Your task to perform on an android device: toggle javascript in the chrome app Image 0: 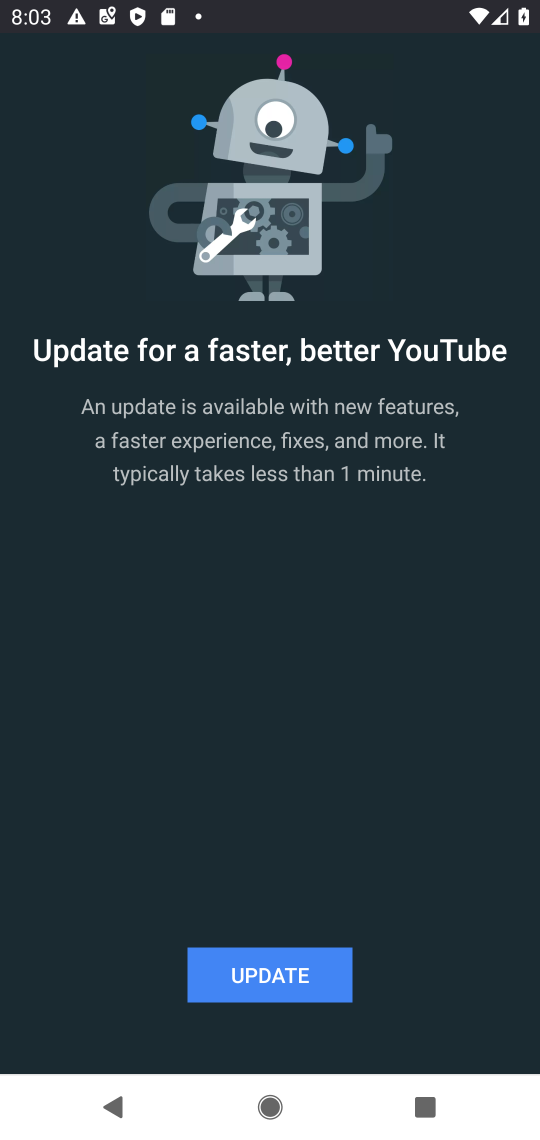
Step 0: press home button
Your task to perform on an android device: toggle javascript in the chrome app Image 1: 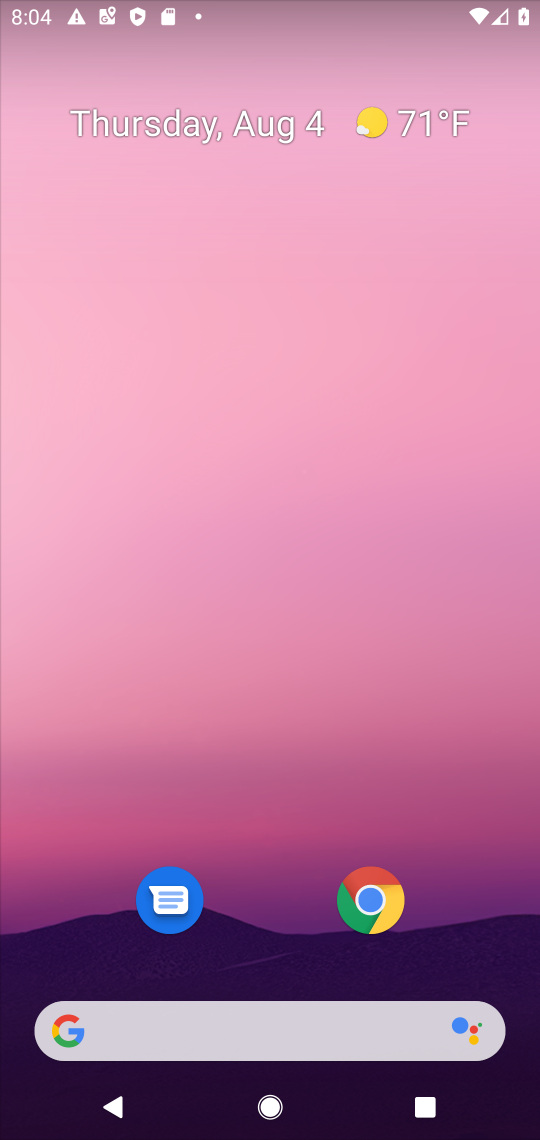
Step 1: click (376, 911)
Your task to perform on an android device: toggle javascript in the chrome app Image 2: 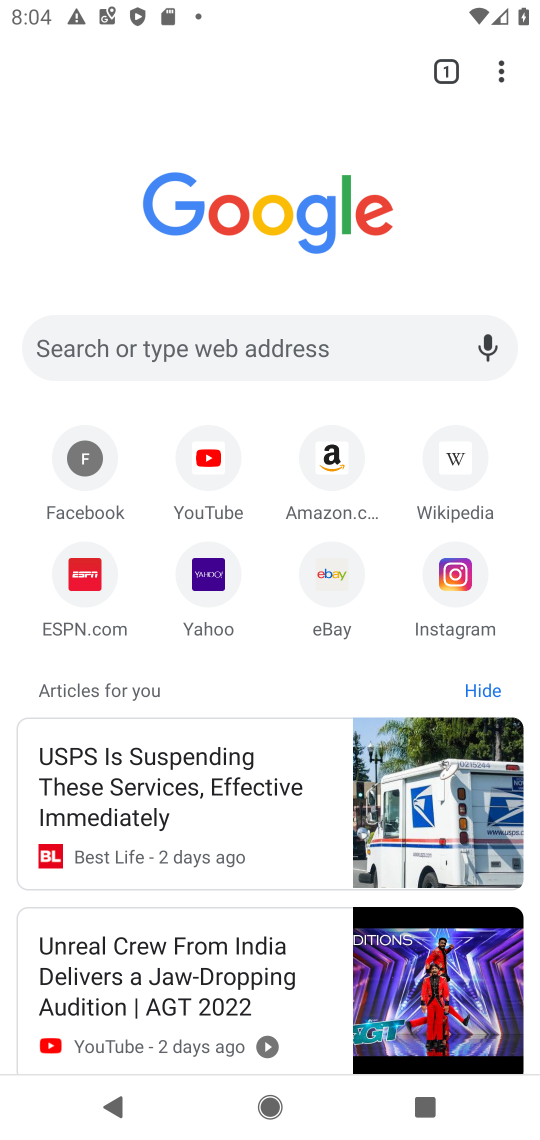
Step 2: click (505, 71)
Your task to perform on an android device: toggle javascript in the chrome app Image 3: 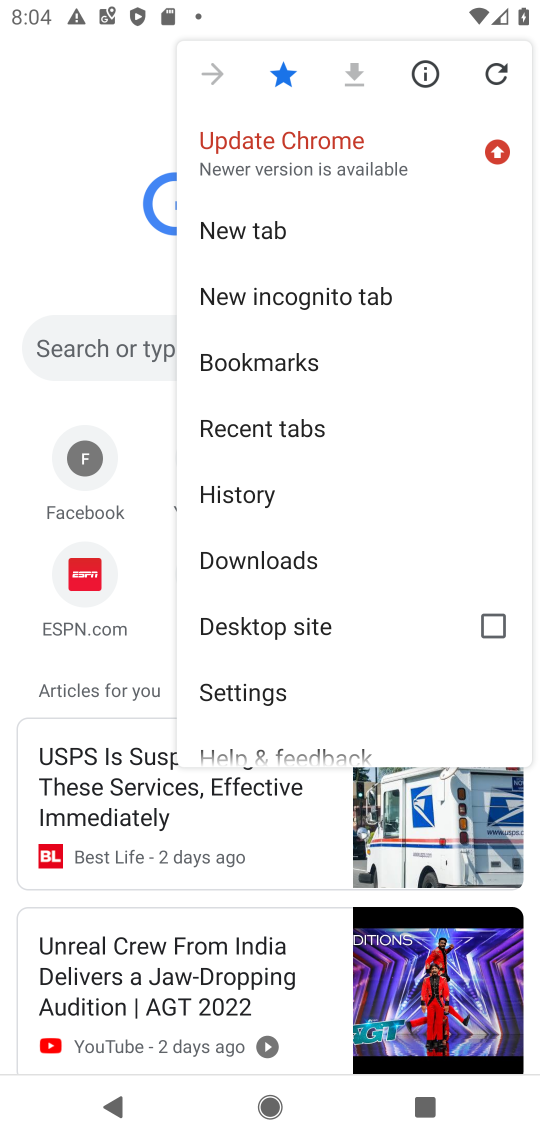
Step 3: click (273, 688)
Your task to perform on an android device: toggle javascript in the chrome app Image 4: 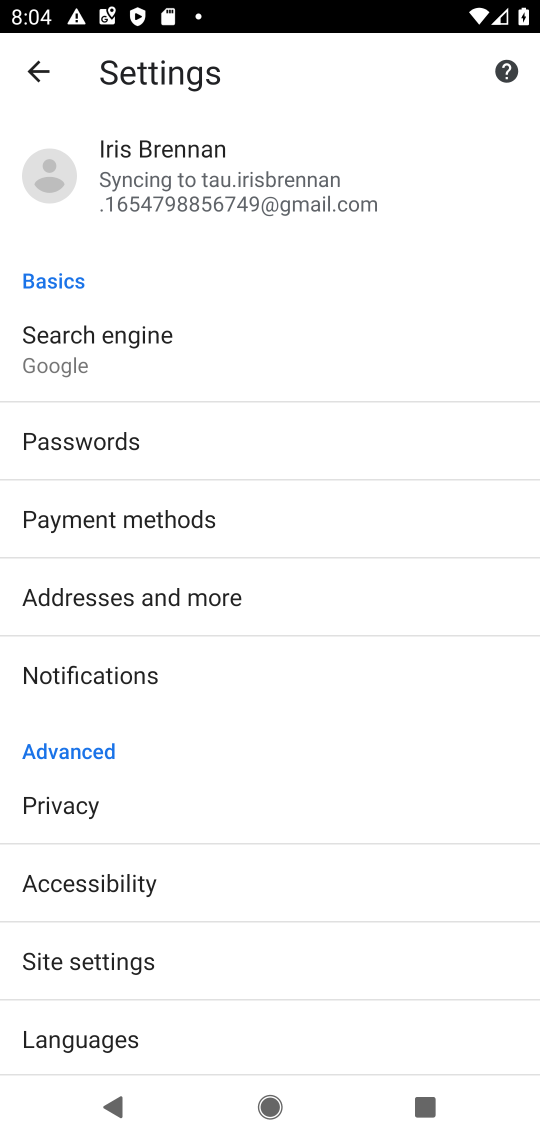
Step 4: click (132, 959)
Your task to perform on an android device: toggle javascript in the chrome app Image 5: 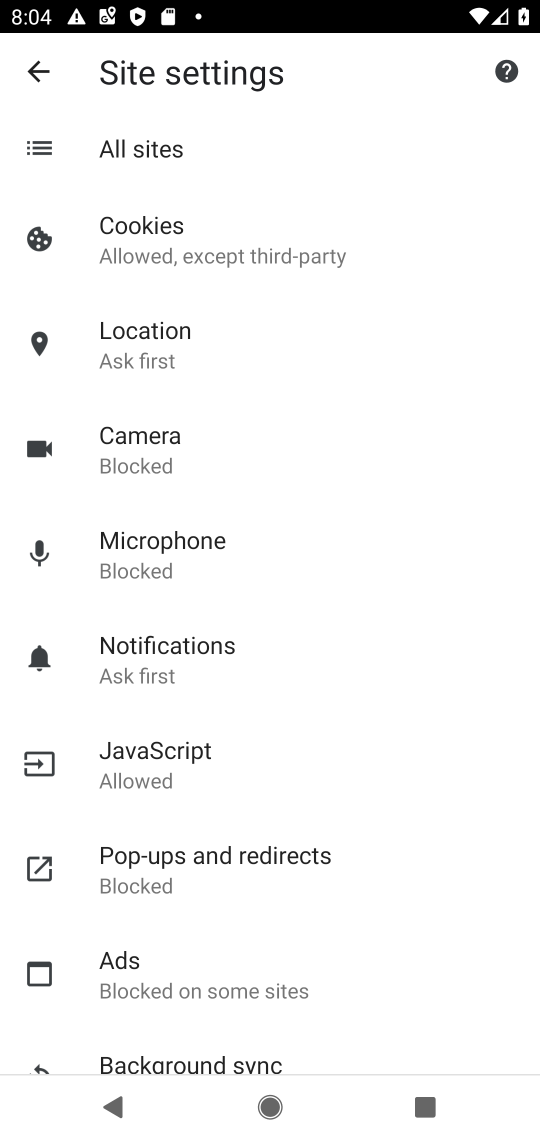
Step 5: click (163, 793)
Your task to perform on an android device: toggle javascript in the chrome app Image 6: 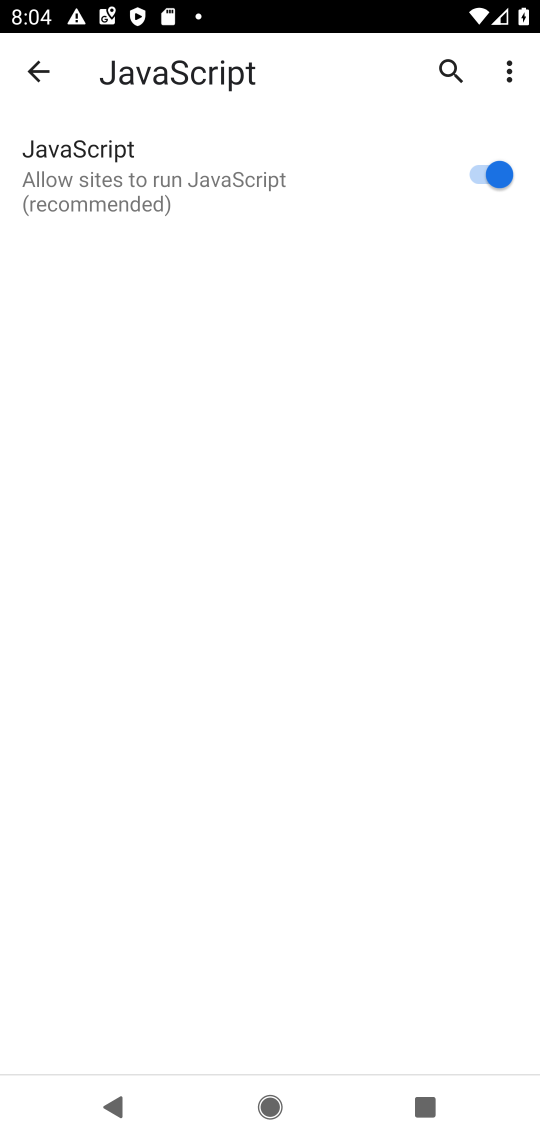
Step 6: click (479, 187)
Your task to perform on an android device: toggle javascript in the chrome app Image 7: 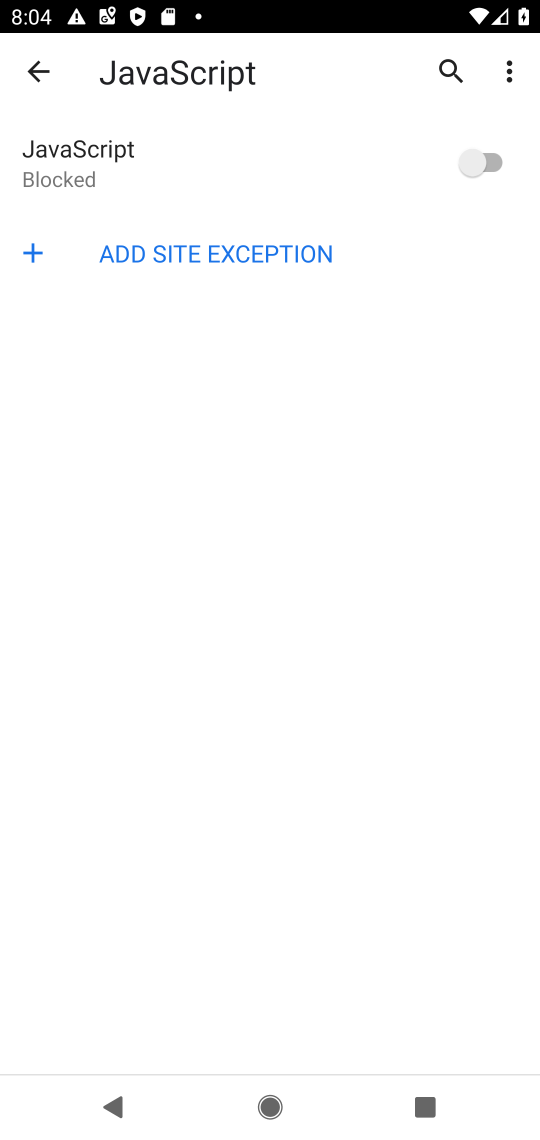
Step 7: task complete